Your task to perform on an android device: Go to Wikipedia Image 0: 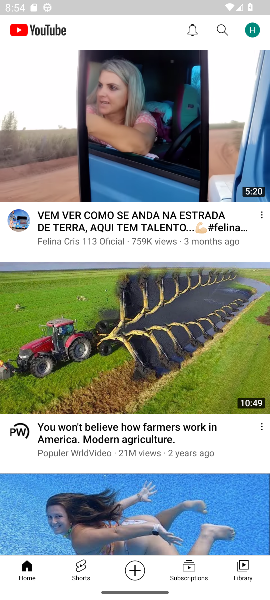
Step 0: press home button
Your task to perform on an android device: Go to Wikipedia Image 1: 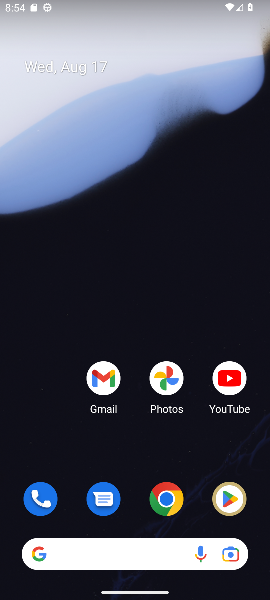
Step 1: click (170, 492)
Your task to perform on an android device: Go to Wikipedia Image 2: 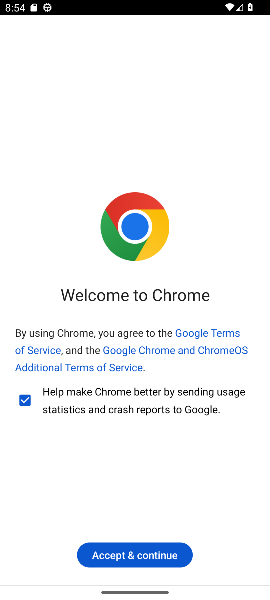
Step 2: click (180, 556)
Your task to perform on an android device: Go to Wikipedia Image 3: 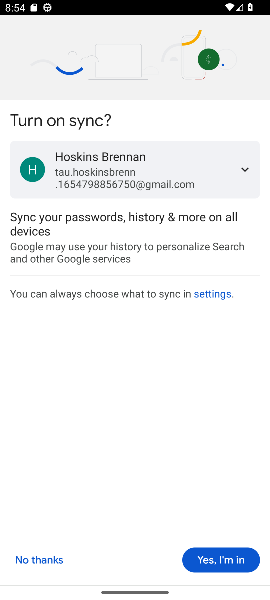
Step 3: click (234, 556)
Your task to perform on an android device: Go to Wikipedia Image 4: 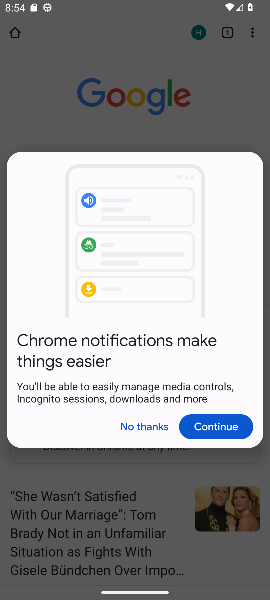
Step 4: click (213, 428)
Your task to perform on an android device: Go to Wikipedia Image 5: 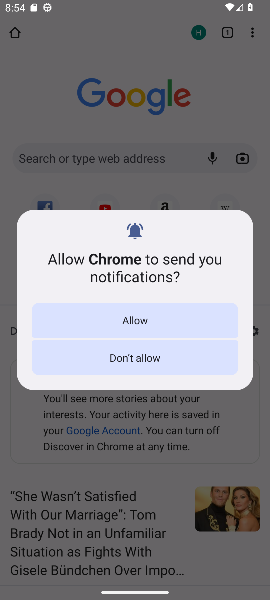
Step 5: click (163, 325)
Your task to perform on an android device: Go to Wikipedia Image 6: 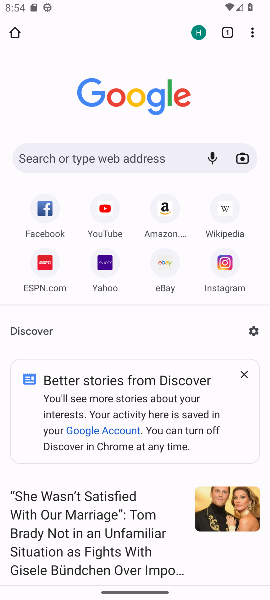
Step 6: click (226, 210)
Your task to perform on an android device: Go to Wikipedia Image 7: 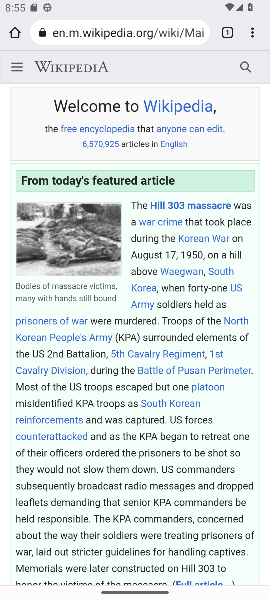
Step 7: task complete